Your task to perform on an android device: Search for vegetarian restaurants on Maps Image 0: 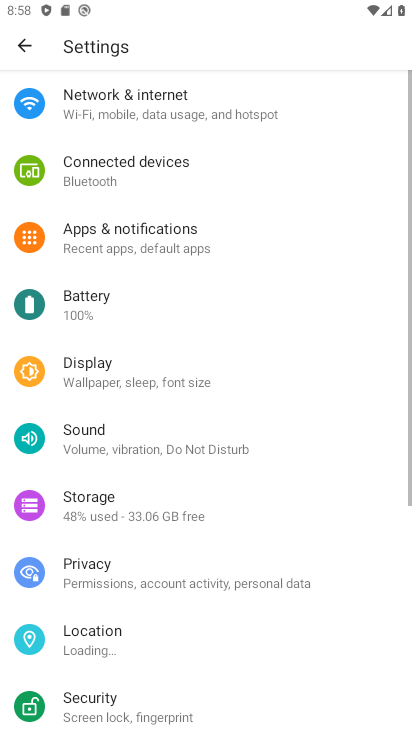
Step 0: press home button
Your task to perform on an android device: Search for vegetarian restaurants on Maps Image 1: 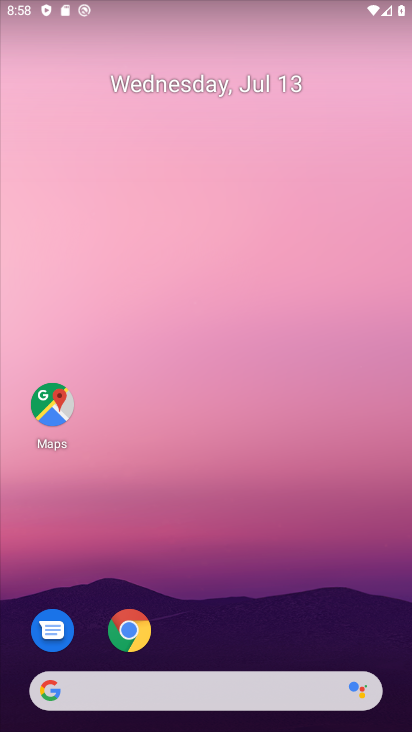
Step 1: click (42, 397)
Your task to perform on an android device: Search for vegetarian restaurants on Maps Image 2: 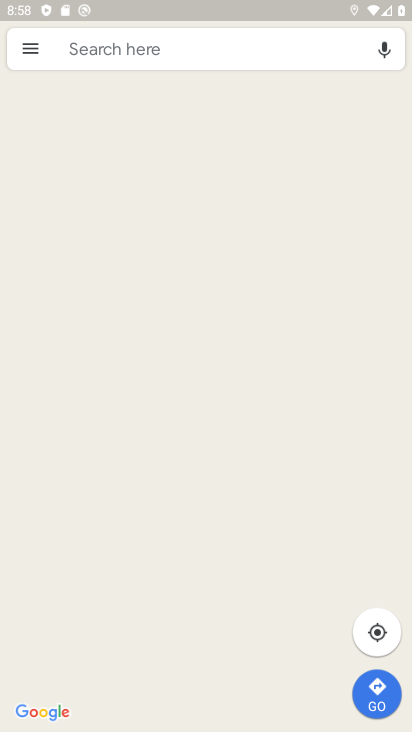
Step 2: click (153, 40)
Your task to perform on an android device: Search for vegetarian restaurants on Maps Image 3: 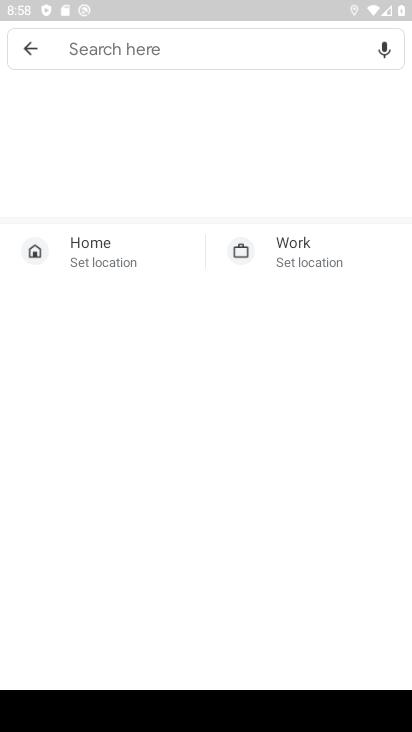
Step 3: type "vegetarian restaurants"
Your task to perform on an android device: Search for vegetarian restaurants on Maps Image 4: 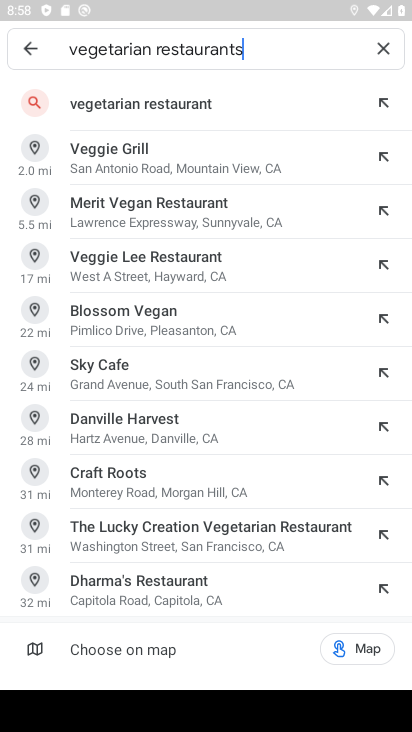
Step 4: click (211, 110)
Your task to perform on an android device: Search for vegetarian restaurants on Maps Image 5: 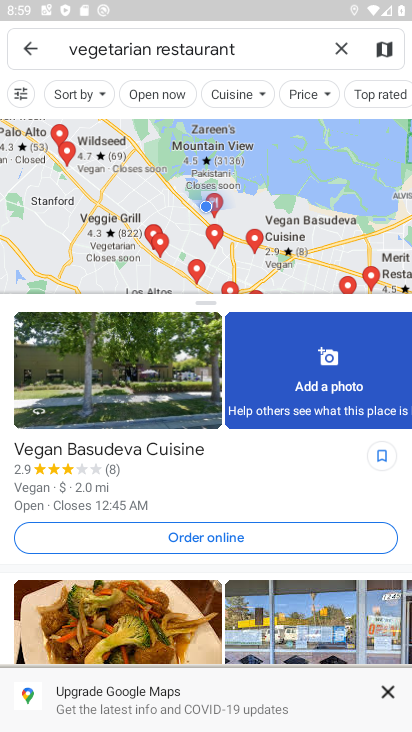
Step 5: task complete